Your task to perform on an android device: Empty the shopping cart on newegg. Add razer deathadder to the cart on newegg, then select checkout. Image 0: 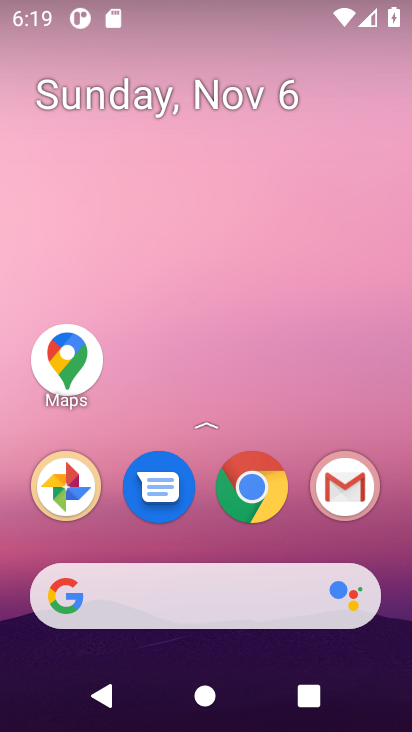
Step 0: click (256, 470)
Your task to perform on an android device: Empty the shopping cart on newegg. Add razer deathadder to the cart on newegg, then select checkout. Image 1: 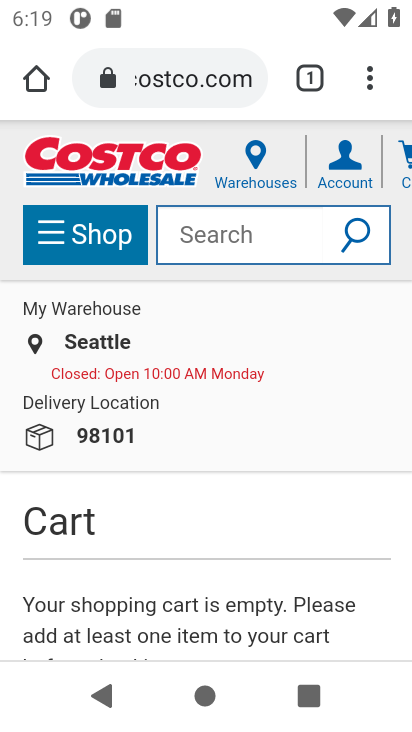
Step 1: click (210, 76)
Your task to perform on an android device: Empty the shopping cart on newegg. Add razer deathadder to the cart on newegg, then select checkout. Image 2: 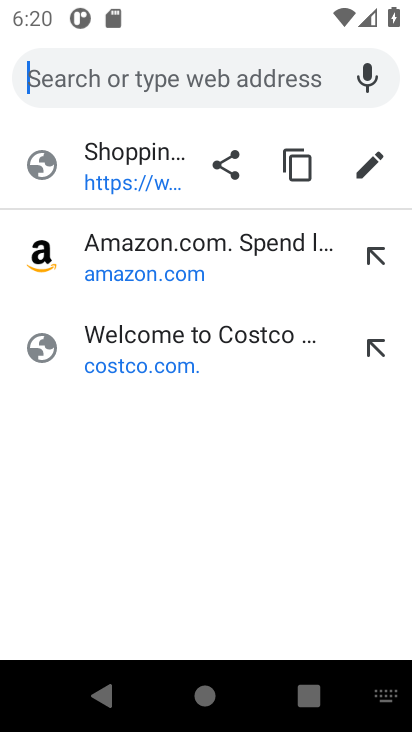
Step 2: type "newegg"
Your task to perform on an android device: Empty the shopping cart on newegg. Add razer deathadder to the cart on newegg, then select checkout. Image 3: 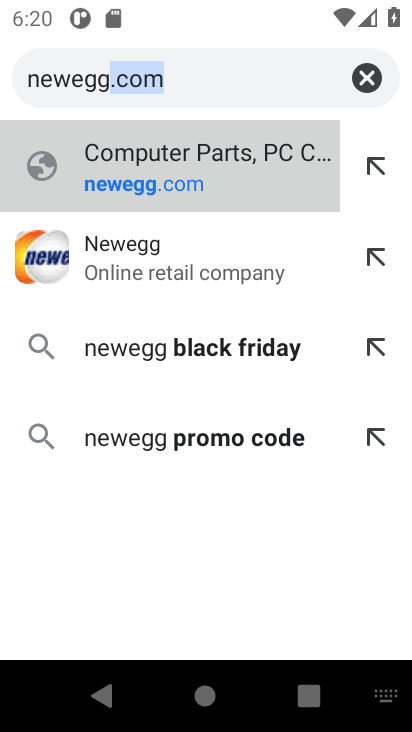
Step 3: click (237, 279)
Your task to perform on an android device: Empty the shopping cart on newegg. Add razer deathadder to the cart on newegg, then select checkout. Image 4: 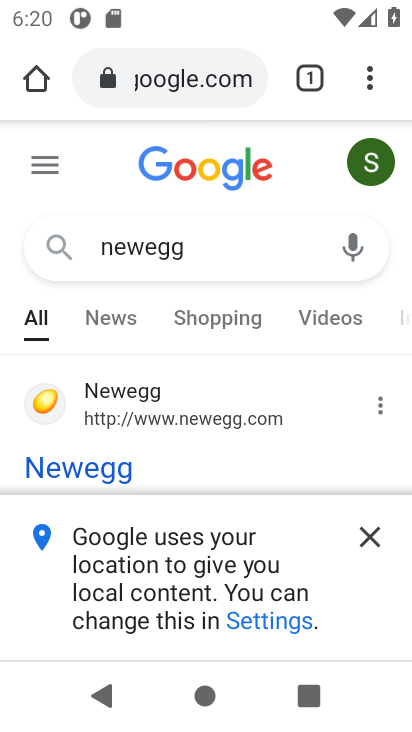
Step 4: click (90, 481)
Your task to perform on an android device: Empty the shopping cart on newegg. Add razer deathadder to the cart on newegg, then select checkout. Image 5: 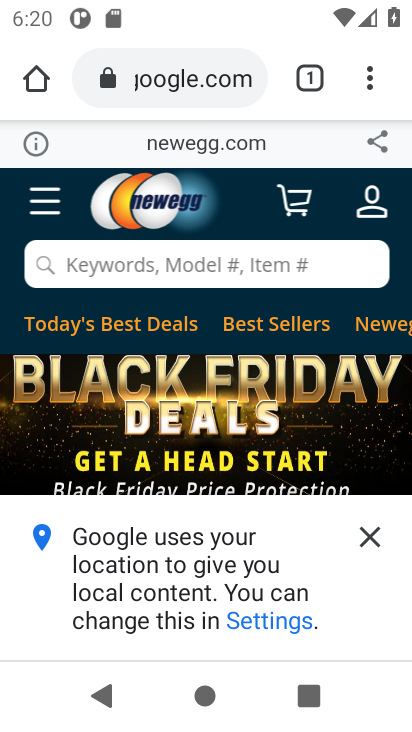
Step 5: click (296, 201)
Your task to perform on an android device: Empty the shopping cart on newegg. Add razer deathadder to the cart on newegg, then select checkout. Image 6: 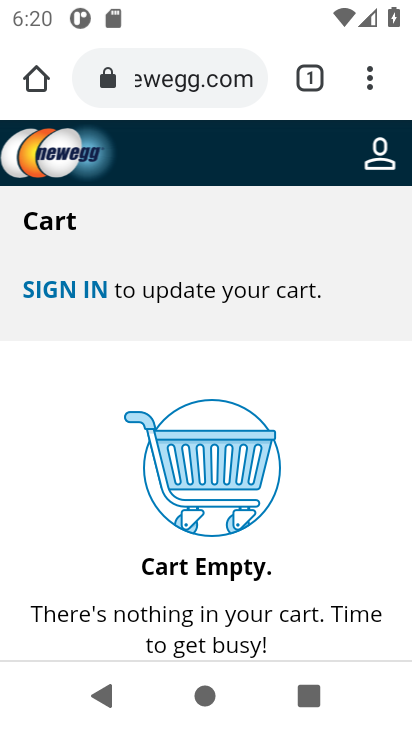
Step 6: press back button
Your task to perform on an android device: Empty the shopping cart on newegg. Add razer deathadder to the cart on newegg, then select checkout. Image 7: 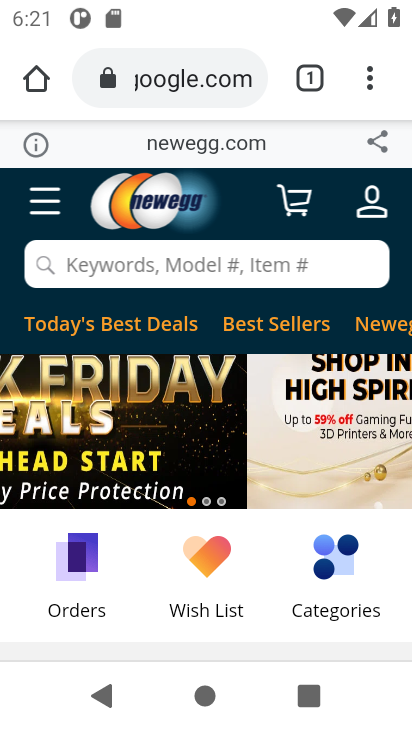
Step 7: click (170, 260)
Your task to perform on an android device: Empty the shopping cart on newegg. Add razer deathadder to the cart on newegg, then select checkout. Image 8: 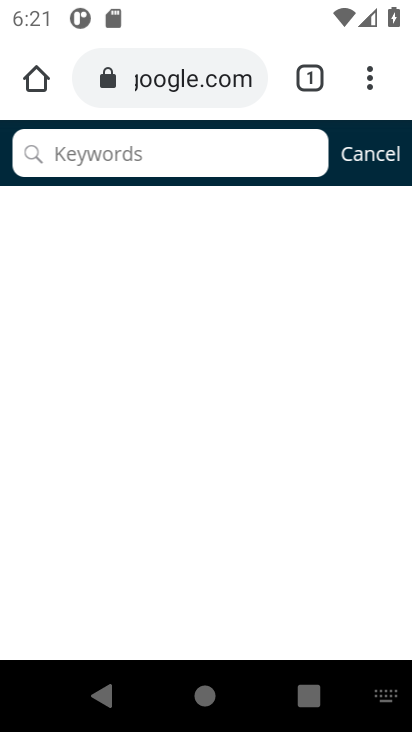
Step 8: type "razer deathadder "
Your task to perform on an android device: Empty the shopping cart on newegg. Add razer deathadder to the cart on newegg, then select checkout. Image 9: 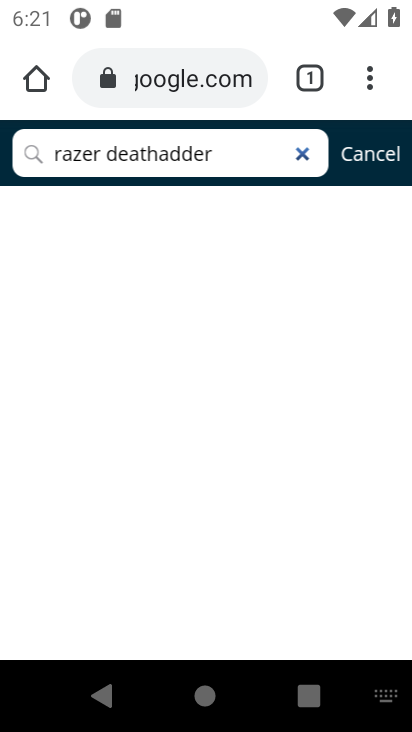
Step 9: click (43, 155)
Your task to perform on an android device: Empty the shopping cart on newegg. Add razer deathadder to the cart on newegg, then select checkout. Image 10: 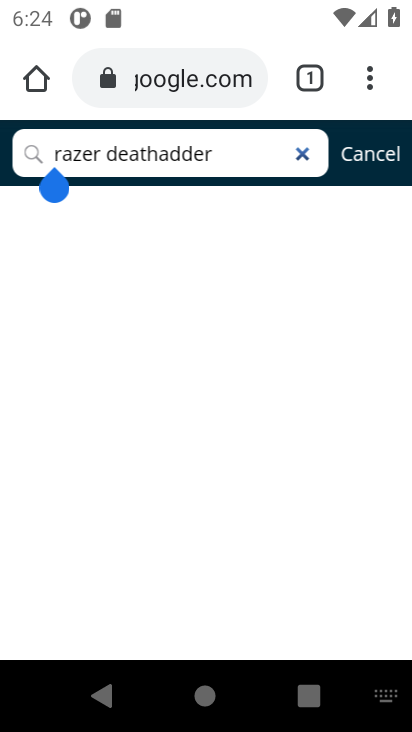
Step 10: task complete